Your task to perform on an android device: open chrome privacy settings Image 0: 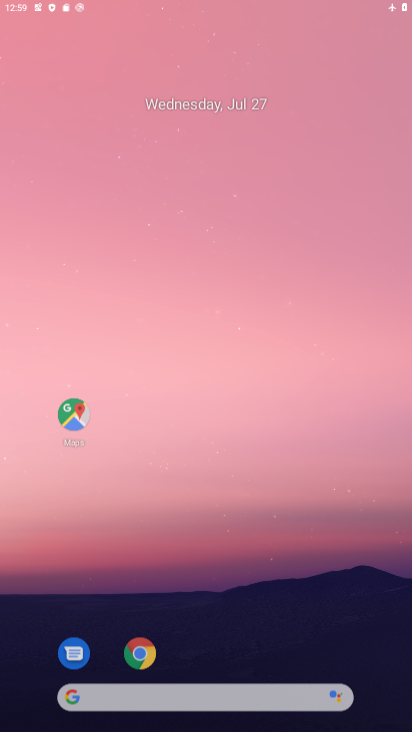
Step 0: click (246, 552)
Your task to perform on an android device: open chrome privacy settings Image 1: 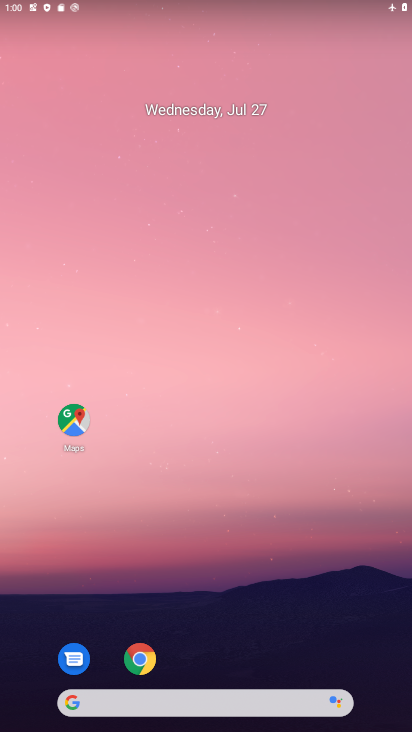
Step 1: drag from (218, 583) to (263, 148)
Your task to perform on an android device: open chrome privacy settings Image 2: 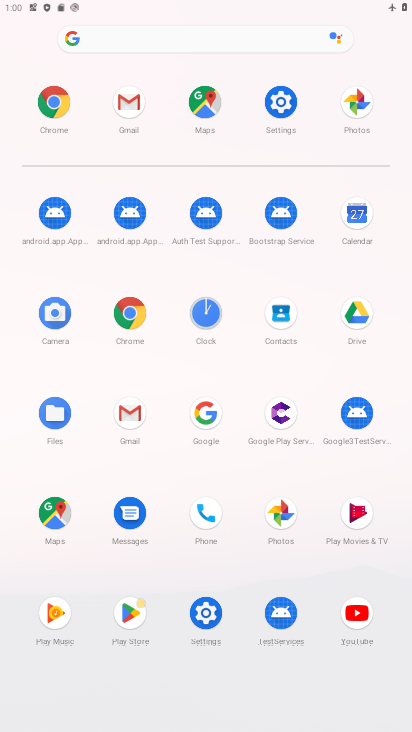
Step 2: click (127, 323)
Your task to perform on an android device: open chrome privacy settings Image 3: 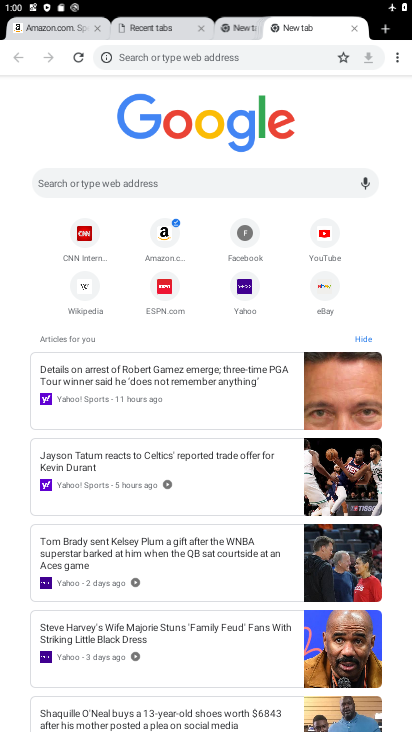
Step 3: click (400, 57)
Your task to perform on an android device: open chrome privacy settings Image 4: 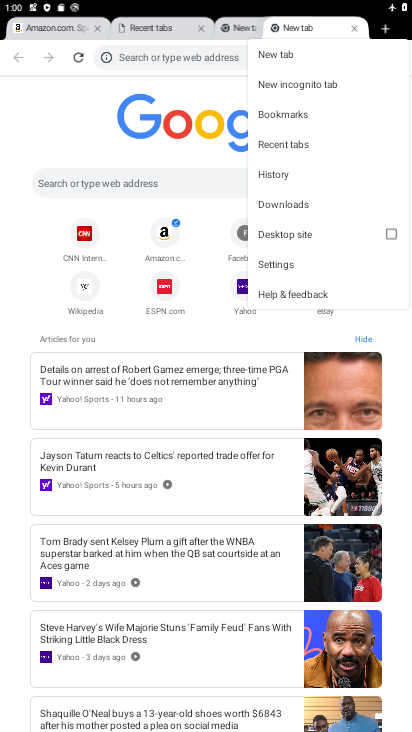
Step 4: click (309, 263)
Your task to perform on an android device: open chrome privacy settings Image 5: 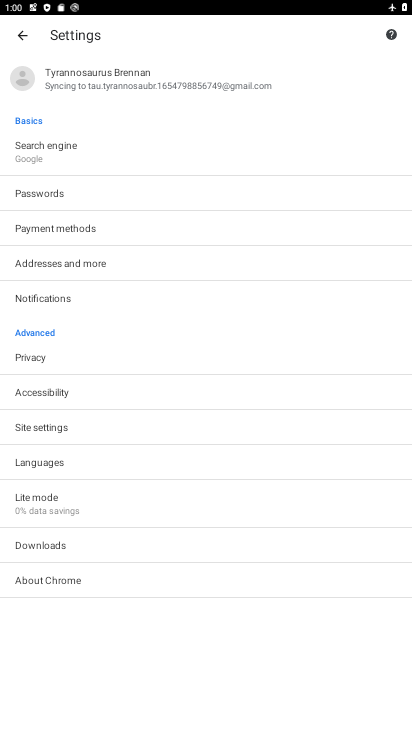
Step 5: click (48, 350)
Your task to perform on an android device: open chrome privacy settings Image 6: 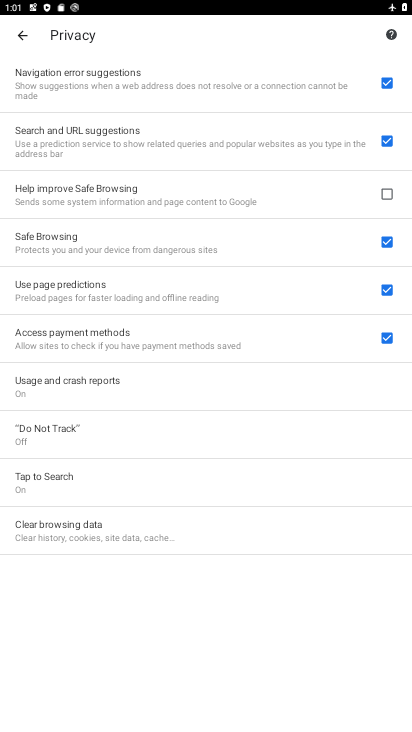
Step 6: task complete